Your task to perform on an android device: Open Amazon Image 0: 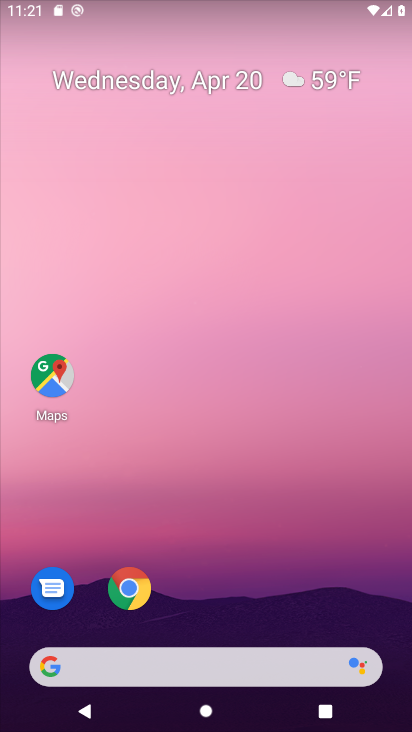
Step 0: click (128, 586)
Your task to perform on an android device: Open Amazon Image 1: 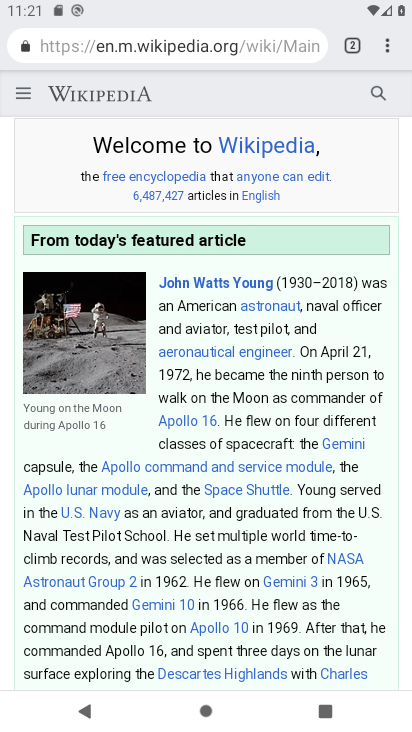
Step 1: click (379, 43)
Your task to perform on an android device: Open Amazon Image 2: 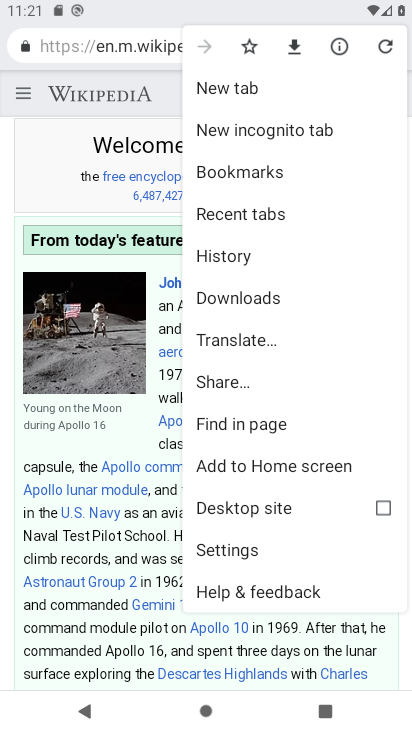
Step 2: click (244, 87)
Your task to perform on an android device: Open Amazon Image 3: 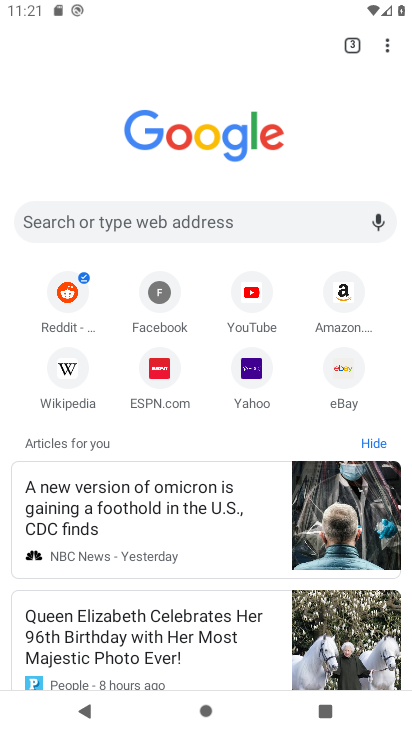
Step 3: click (345, 289)
Your task to perform on an android device: Open Amazon Image 4: 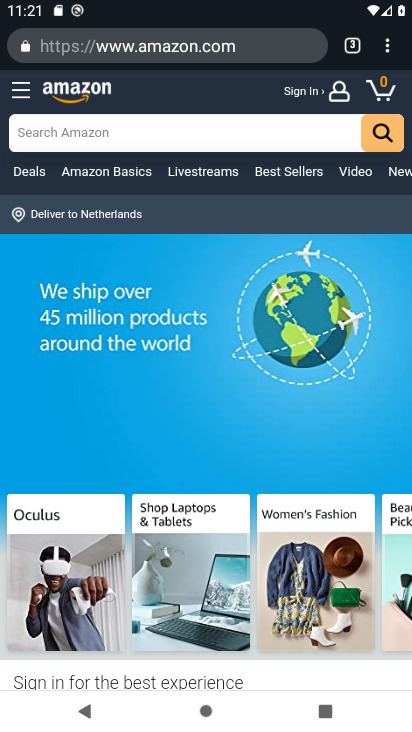
Step 4: task complete